Your task to perform on an android device: Open maps Image 0: 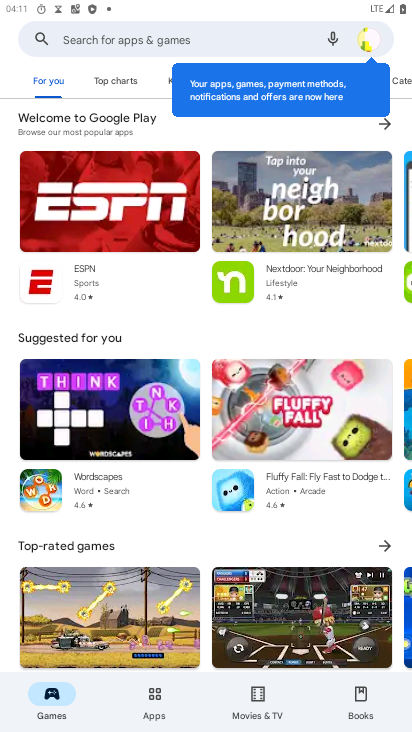
Step 0: press home button
Your task to perform on an android device: Open maps Image 1: 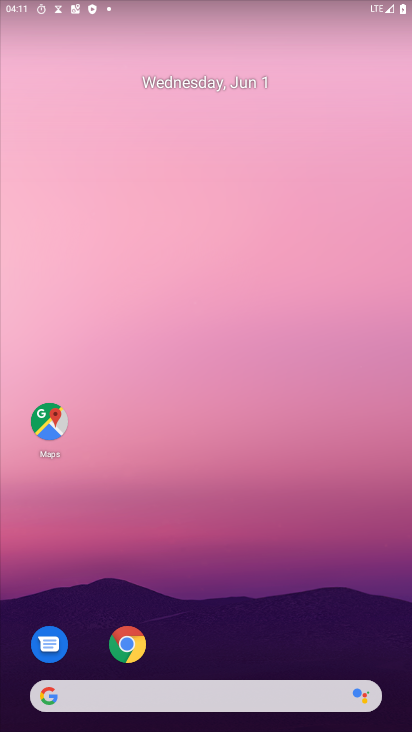
Step 1: click (48, 421)
Your task to perform on an android device: Open maps Image 2: 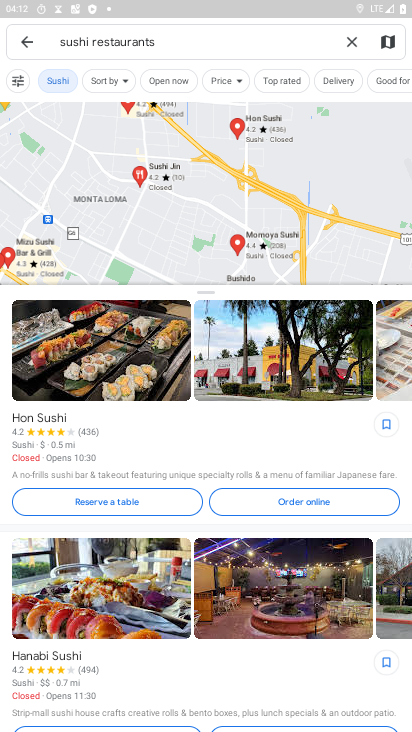
Step 2: click (355, 41)
Your task to perform on an android device: Open maps Image 3: 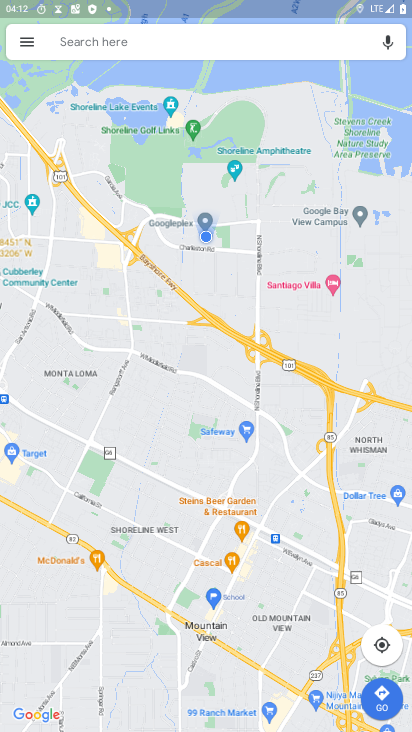
Step 3: task complete